Your task to perform on an android device: Open Google Image 0: 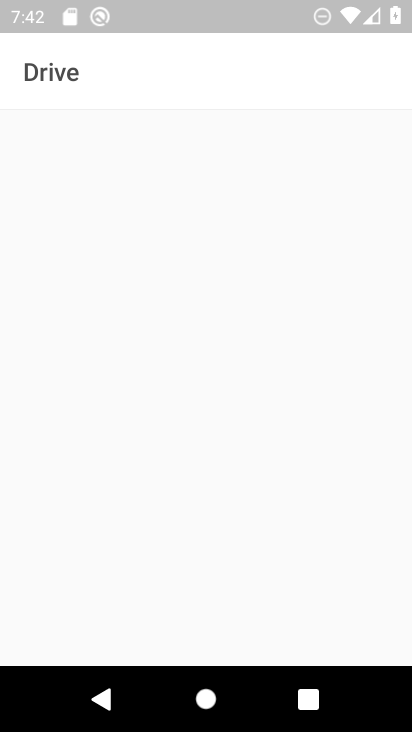
Step 0: press home button
Your task to perform on an android device: Open Google Image 1: 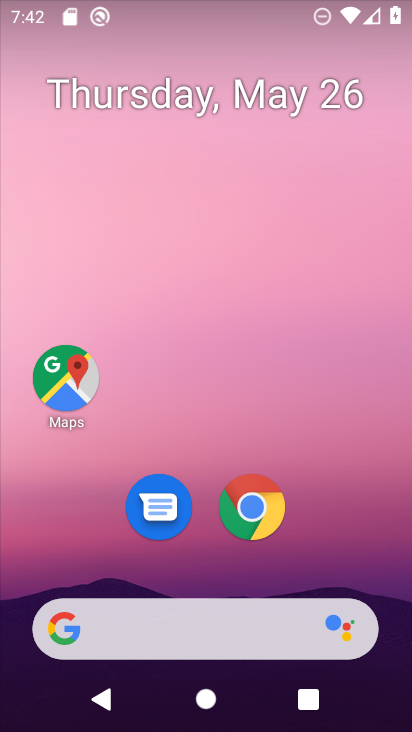
Step 1: click (136, 623)
Your task to perform on an android device: Open Google Image 2: 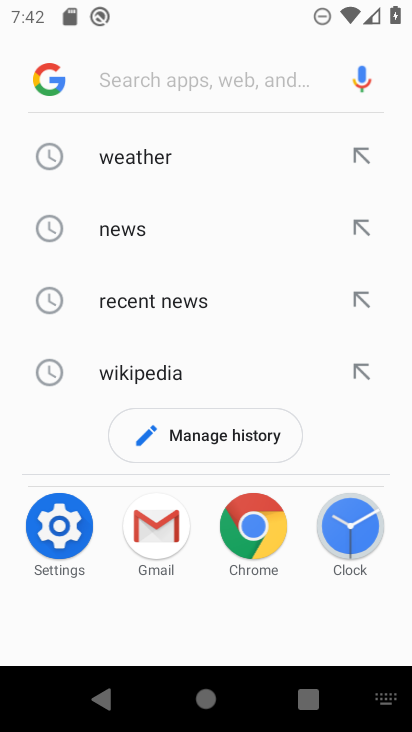
Step 2: task complete